Your task to perform on an android device: set the timer Image 0: 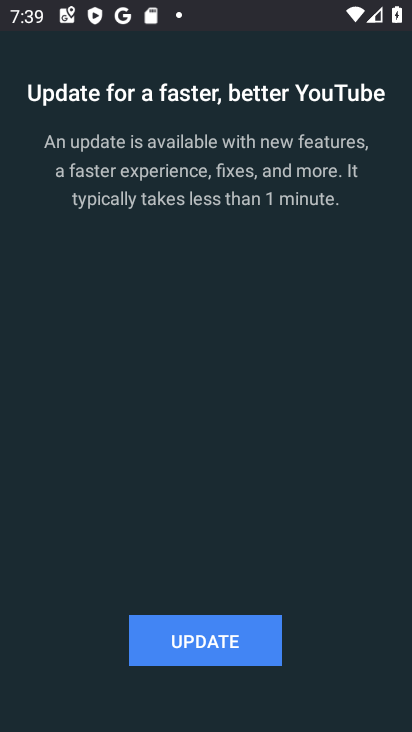
Step 0: press home button
Your task to perform on an android device: set the timer Image 1: 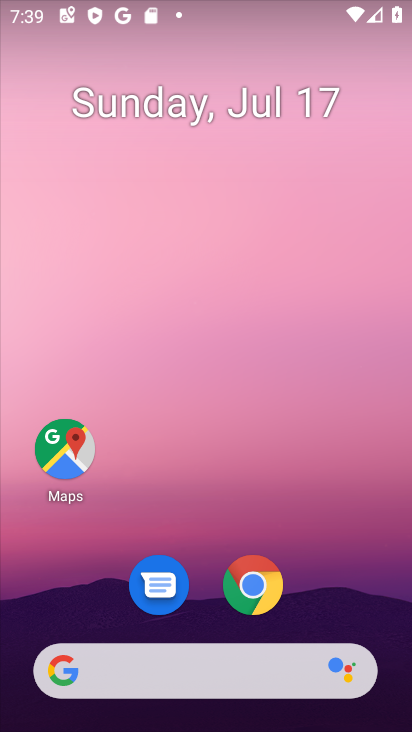
Step 1: drag from (336, 579) to (261, 23)
Your task to perform on an android device: set the timer Image 2: 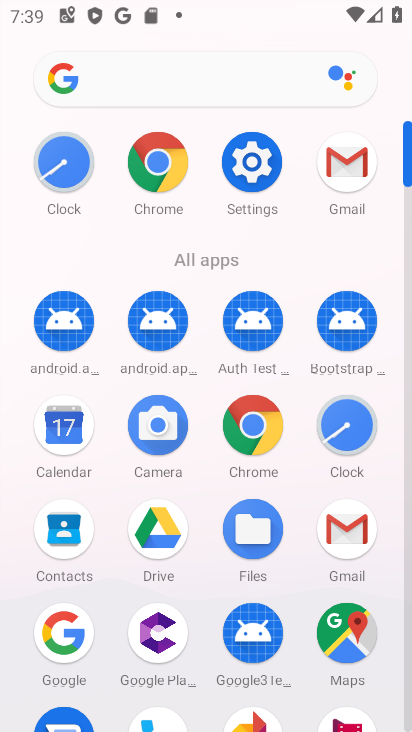
Step 2: click (79, 171)
Your task to perform on an android device: set the timer Image 3: 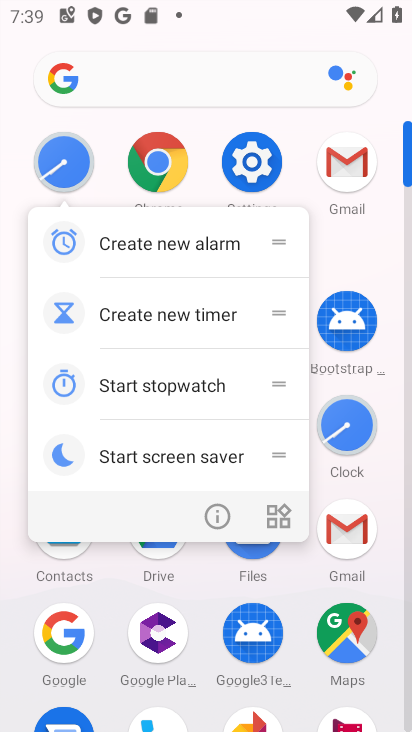
Step 3: click (71, 160)
Your task to perform on an android device: set the timer Image 4: 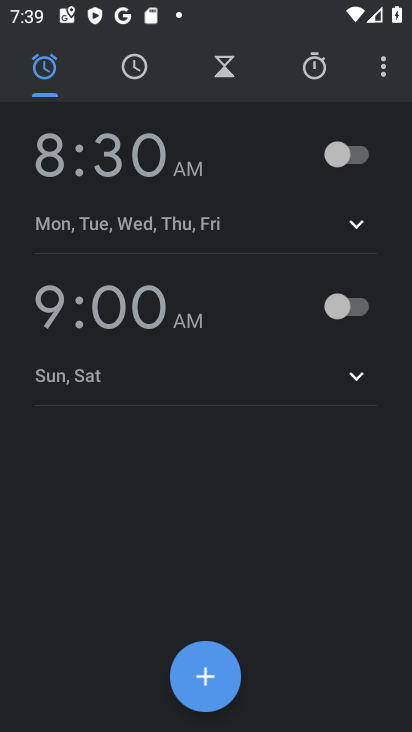
Step 4: click (228, 73)
Your task to perform on an android device: set the timer Image 5: 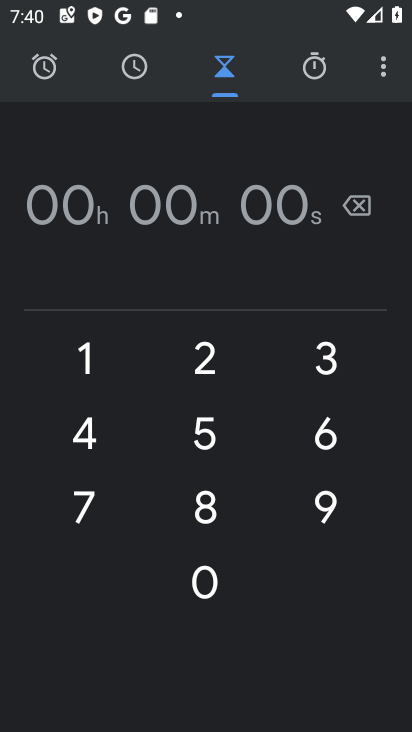
Step 5: task complete